Your task to perform on an android device: Go to internet settings Image 0: 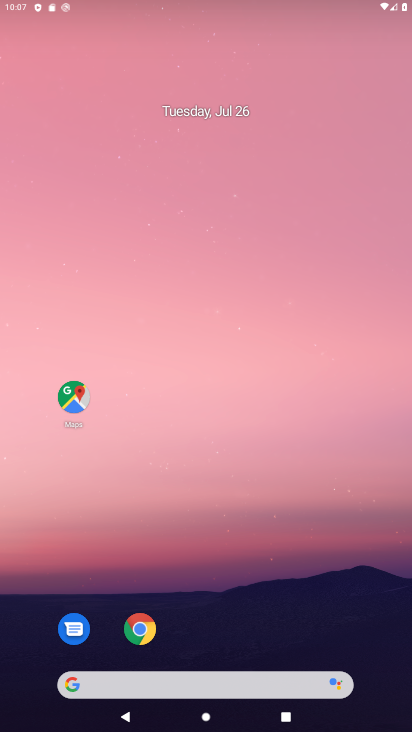
Step 0: drag from (311, 603) to (305, 194)
Your task to perform on an android device: Go to internet settings Image 1: 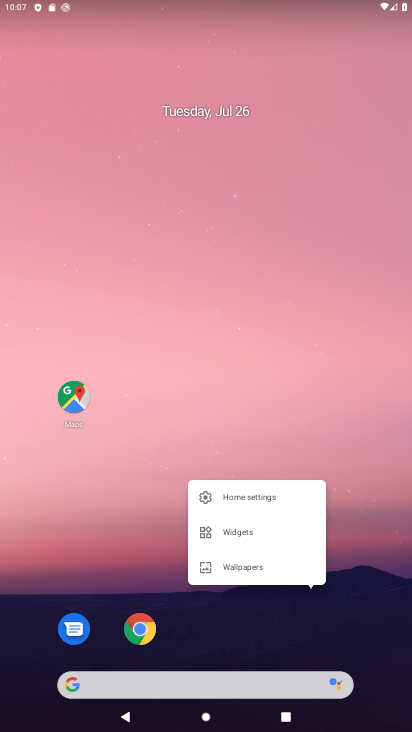
Step 1: click (305, 194)
Your task to perform on an android device: Go to internet settings Image 2: 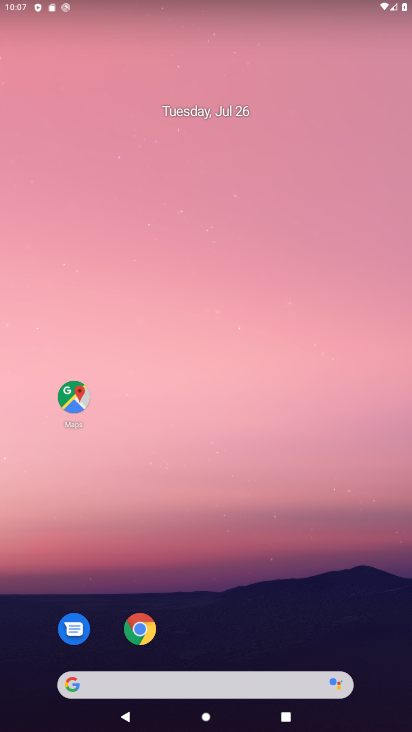
Step 2: drag from (228, 592) to (273, 34)
Your task to perform on an android device: Go to internet settings Image 3: 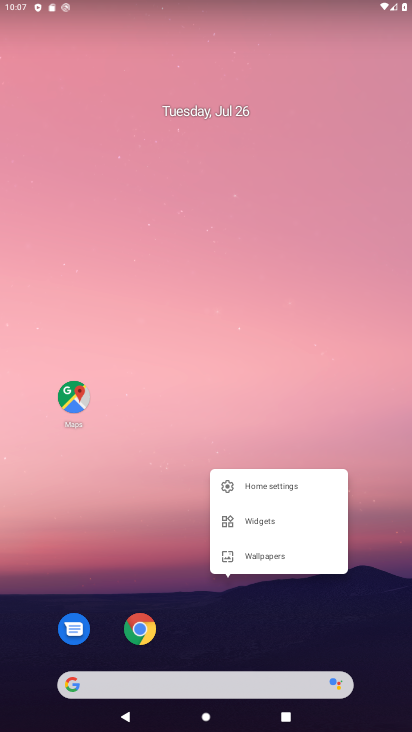
Step 3: click (373, 432)
Your task to perform on an android device: Go to internet settings Image 4: 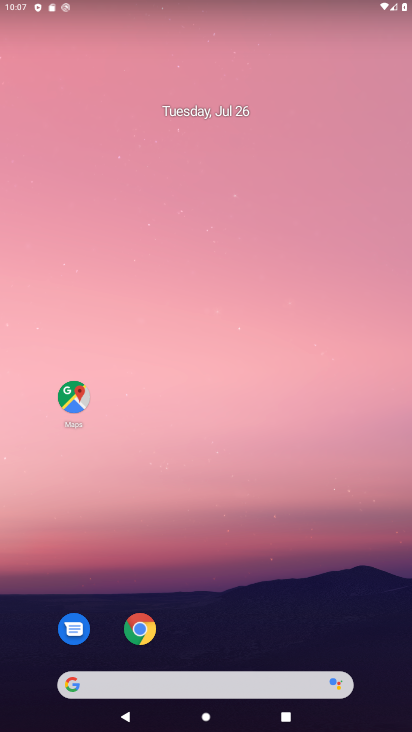
Step 4: drag from (258, 649) to (201, 3)
Your task to perform on an android device: Go to internet settings Image 5: 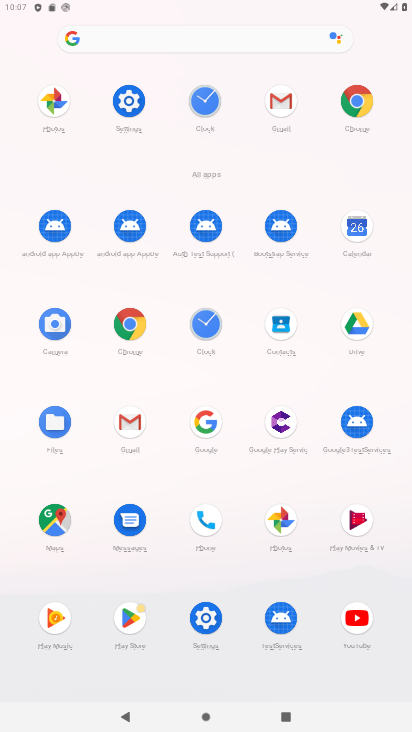
Step 5: click (134, 115)
Your task to perform on an android device: Go to internet settings Image 6: 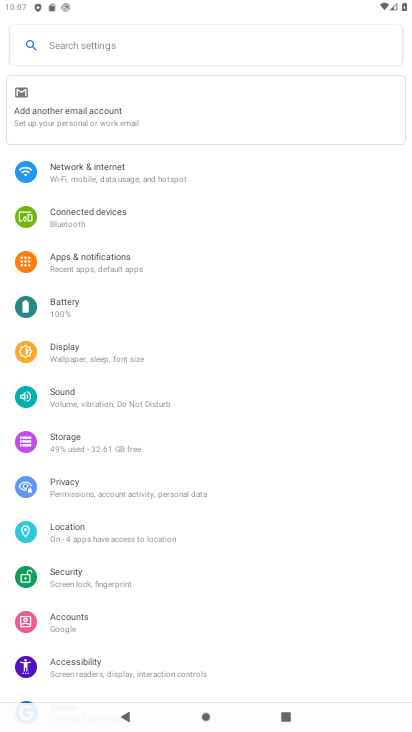
Step 6: task complete